Your task to perform on an android device: install app "LiveIn - Share Your Moment" Image 0: 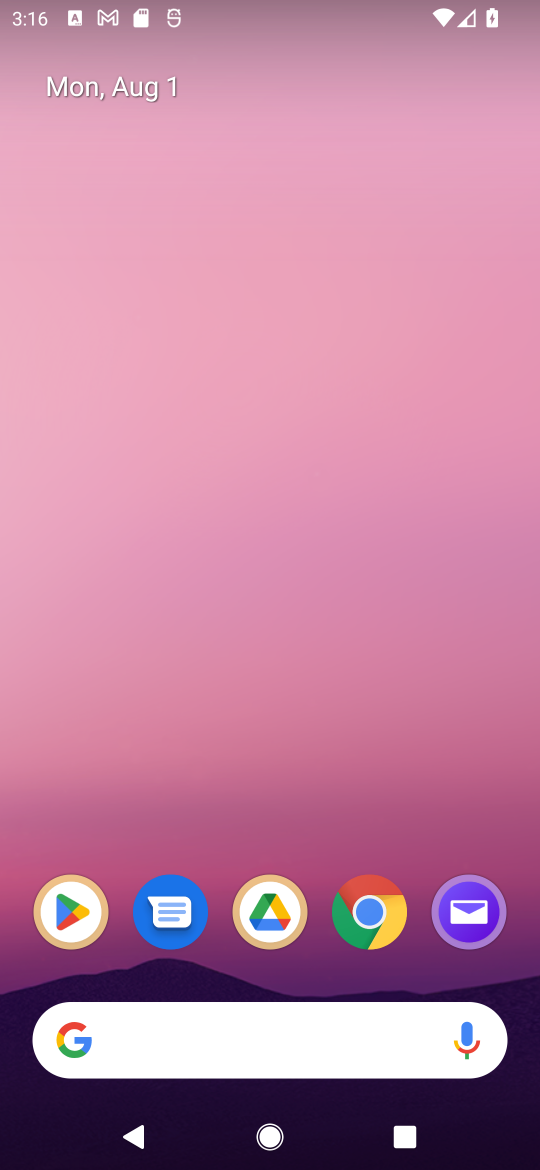
Step 0: click (47, 924)
Your task to perform on an android device: install app "LiveIn - Share Your Moment" Image 1: 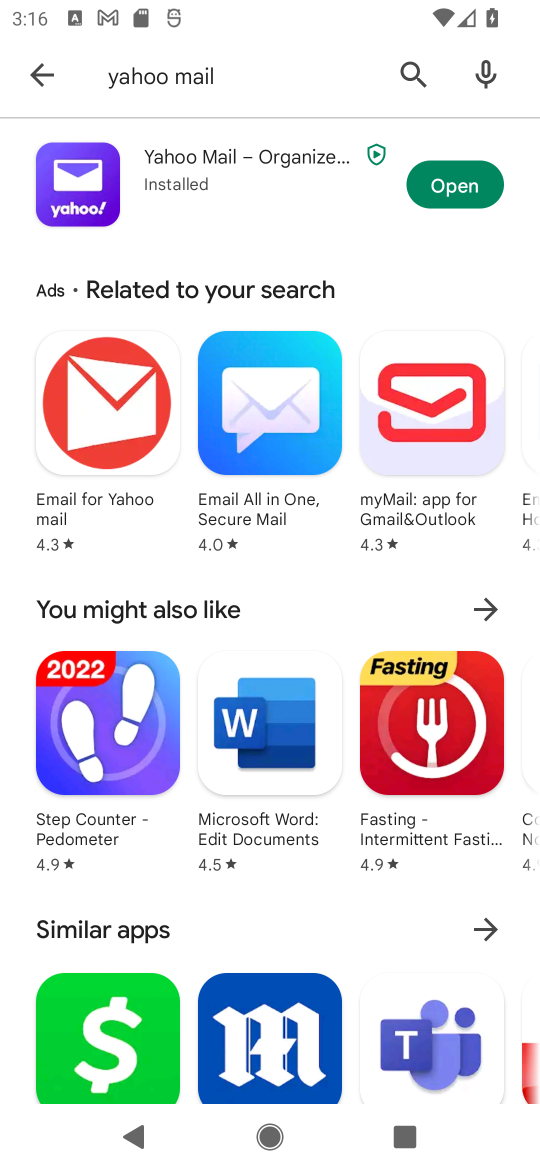
Step 1: click (404, 79)
Your task to perform on an android device: install app "LiveIn - Share Your Moment" Image 2: 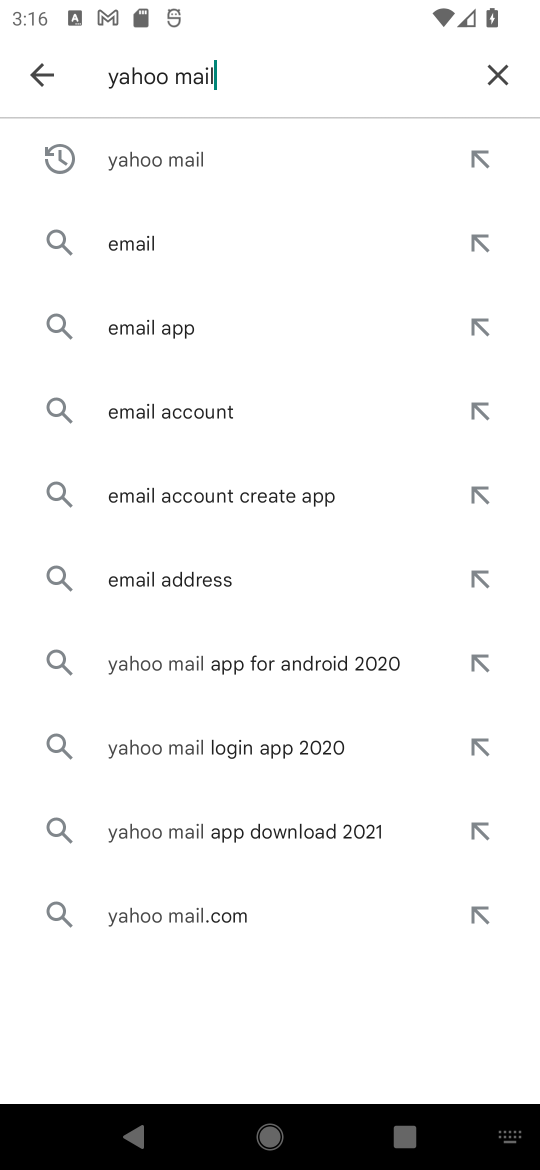
Step 2: click (481, 81)
Your task to perform on an android device: install app "LiveIn - Share Your Moment" Image 3: 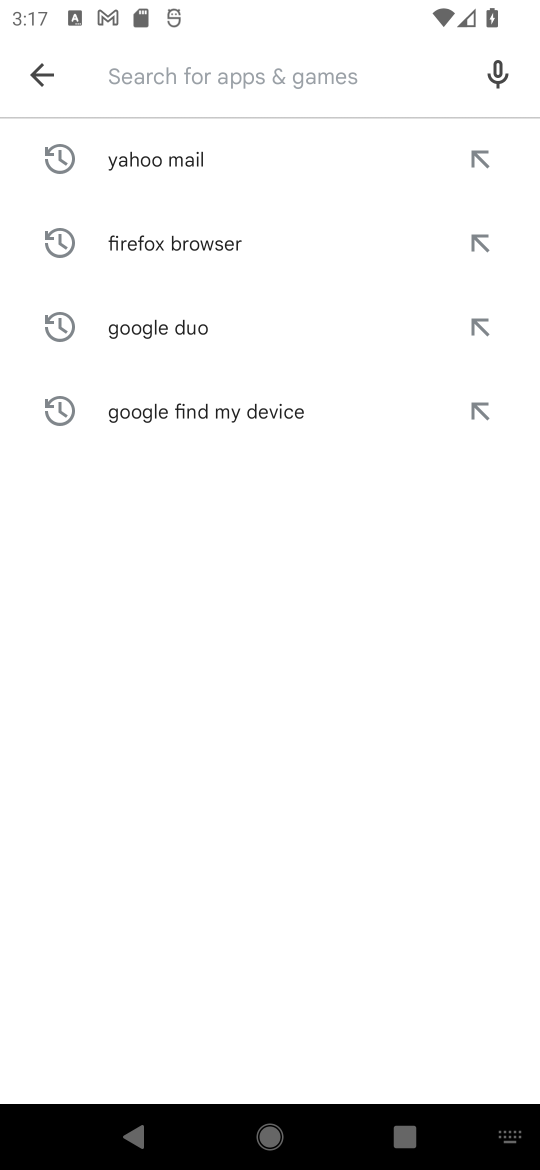
Step 3: type "LiveIn - Share Your Moment"
Your task to perform on an android device: install app "LiveIn - Share Your Moment" Image 4: 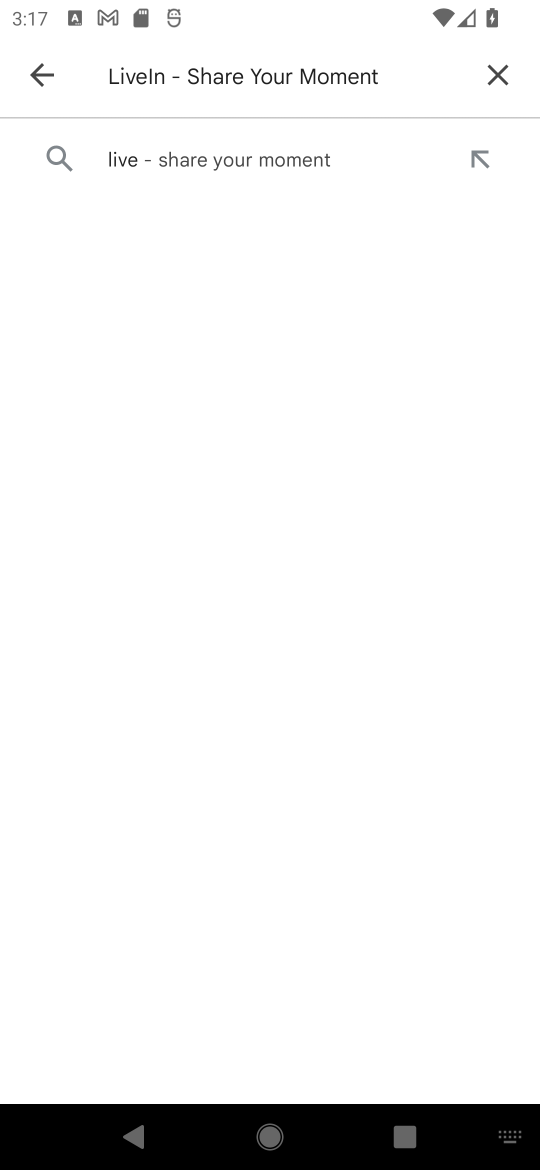
Step 4: click (216, 173)
Your task to perform on an android device: install app "LiveIn - Share Your Moment" Image 5: 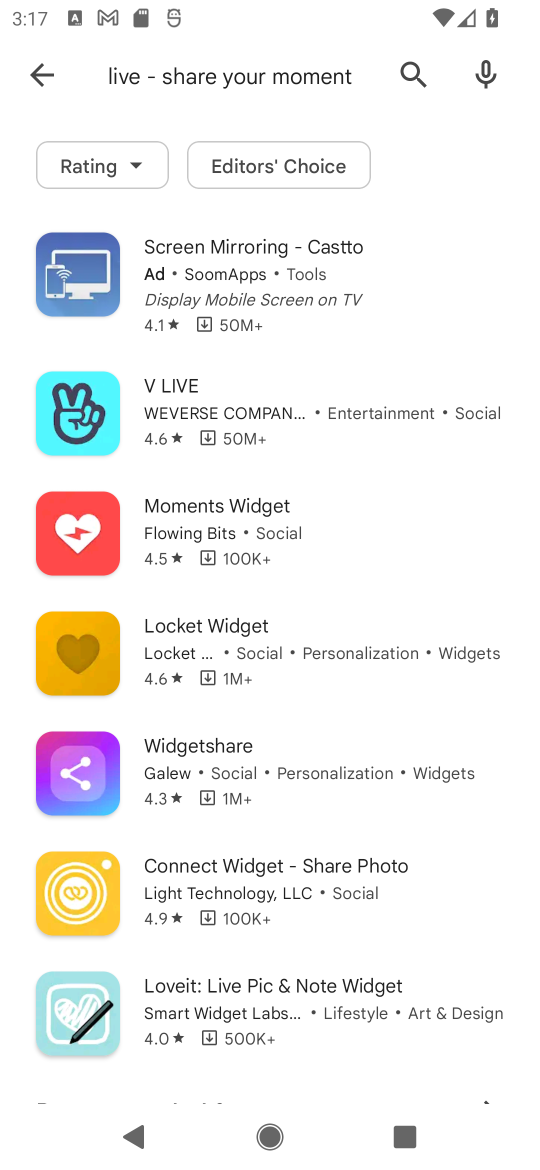
Step 5: task complete